Your task to perform on an android device: change notifications settings Image 0: 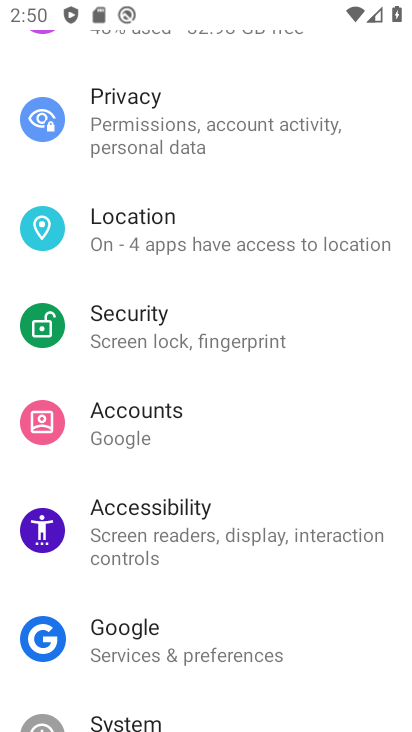
Step 0: press home button
Your task to perform on an android device: change notifications settings Image 1: 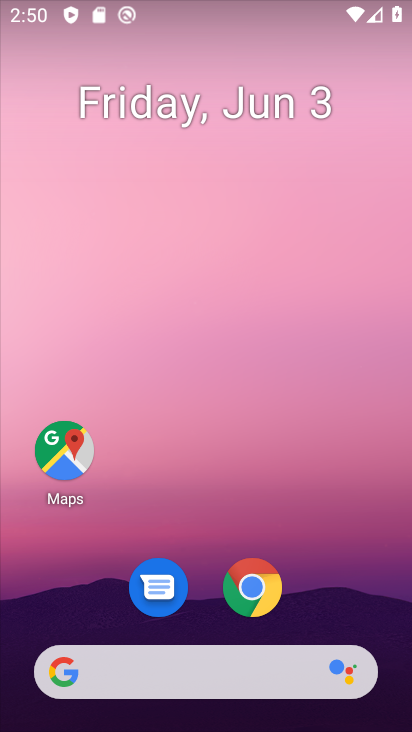
Step 1: drag from (218, 731) to (202, 162)
Your task to perform on an android device: change notifications settings Image 2: 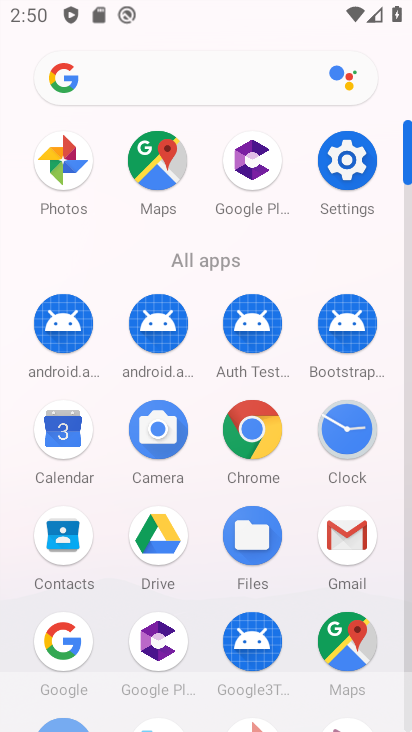
Step 2: click (341, 165)
Your task to perform on an android device: change notifications settings Image 3: 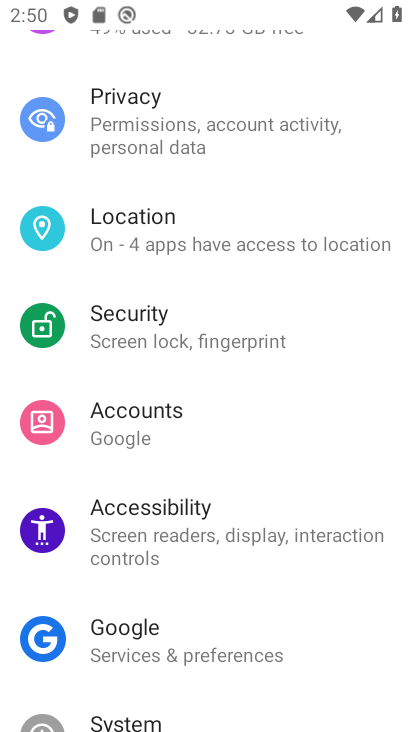
Step 3: drag from (282, 164) to (295, 508)
Your task to perform on an android device: change notifications settings Image 4: 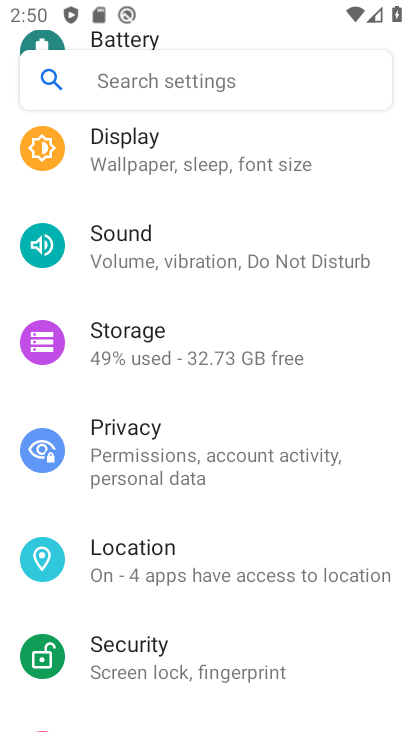
Step 4: drag from (225, 194) to (243, 535)
Your task to perform on an android device: change notifications settings Image 5: 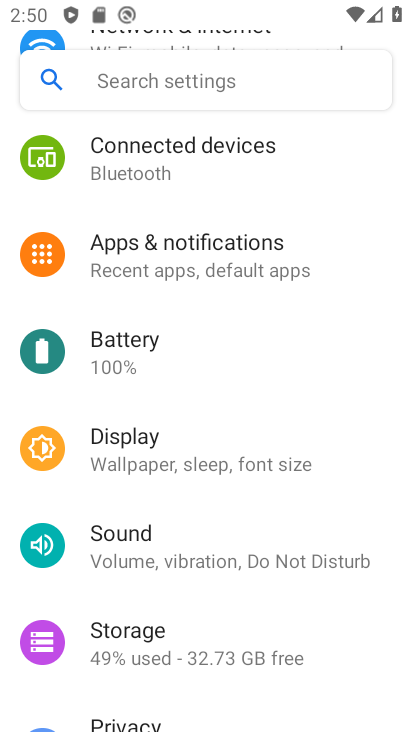
Step 5: click (228, 266)
Your task to perform on an android device: change notifications settings Image 6: 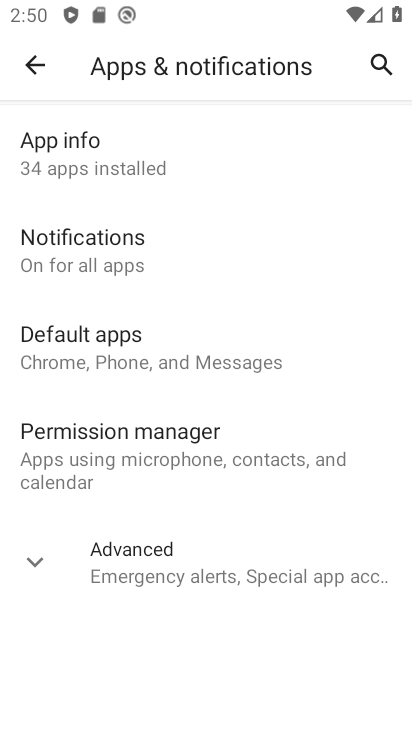
Step 6: click (75, 249)
Your task to perform on an android device: change notifications settings Image 7: 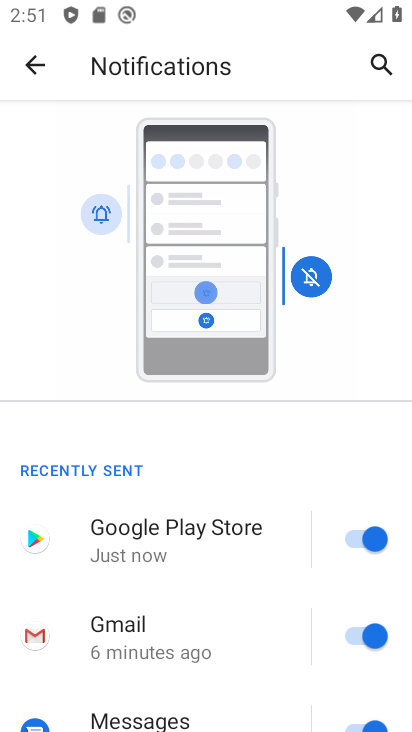
Step 7: drag from (250, 668) to (234, 306)
Your task to perform on an android device: change notifications settings Image 8: 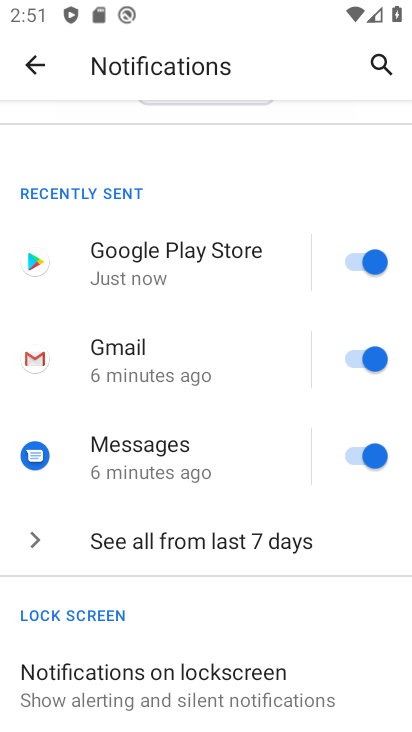
Step 8: drag from (207, 698) to (206, 330)
Your task to perform on an android device: change notifications settings Image 9: 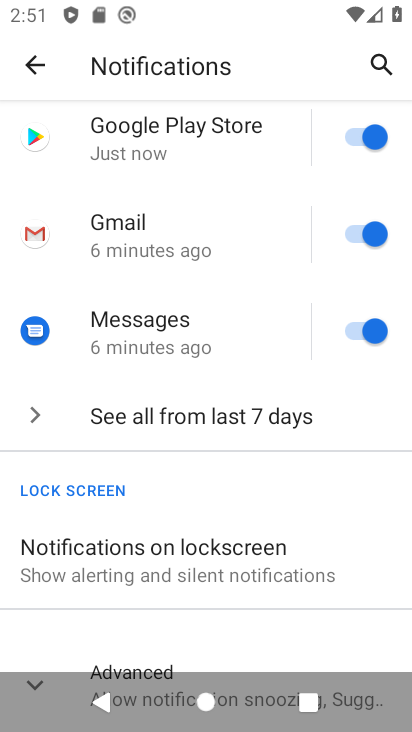
Step 9: click (192, 649)
Your task to perform on an android device: change notifications settings Image 10: 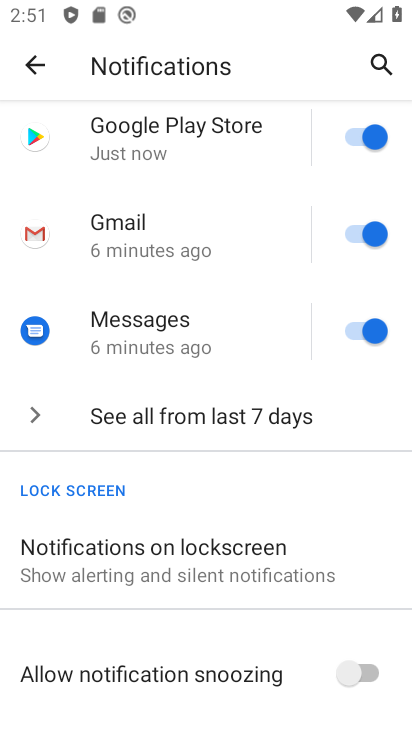
Step 10: click (361, 671)
Your task to perform on an android device: change notifications settings Image 11: 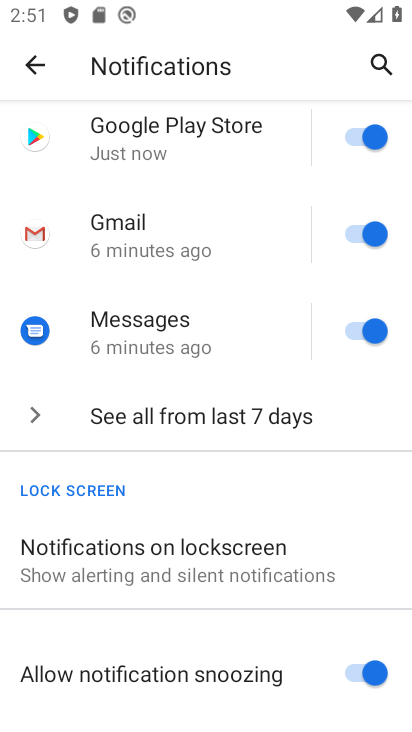
Step 11: task complete